Your task to perform on an android device: Open Chrome and go to the settings page Image 0: 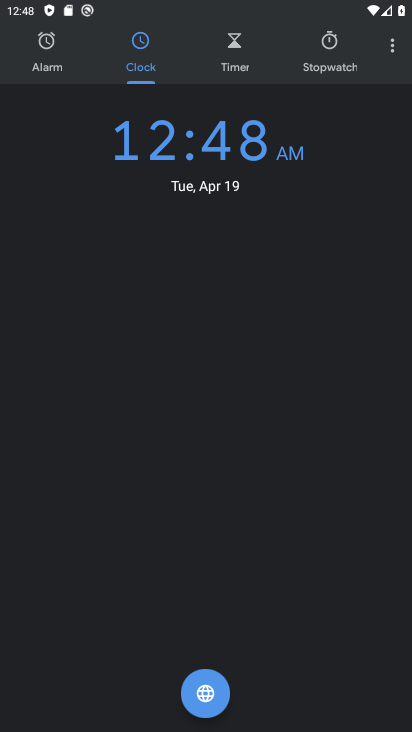
Step 0: press back button
Your task to perform on an android device: Open Chrome and go to the settings page Image 1: 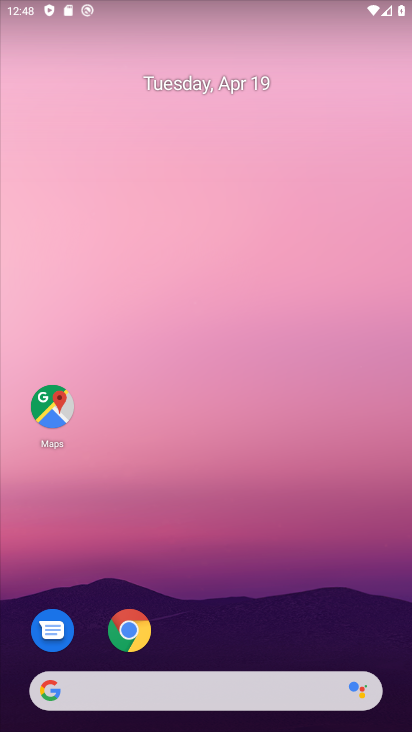
Step 1: click (142, 641)
Your task to perform on an android device: Open Chrome and go to the settings page Image 2: 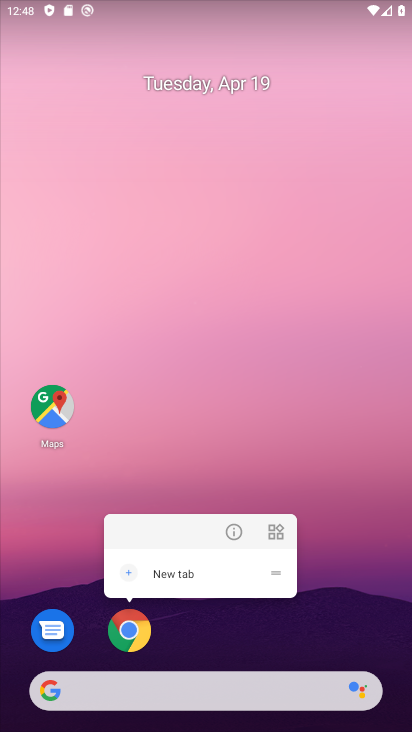
Step 2: click (134, 634)
Your task to perform on an android device: Open Chrome and go to the settings page Image 3: 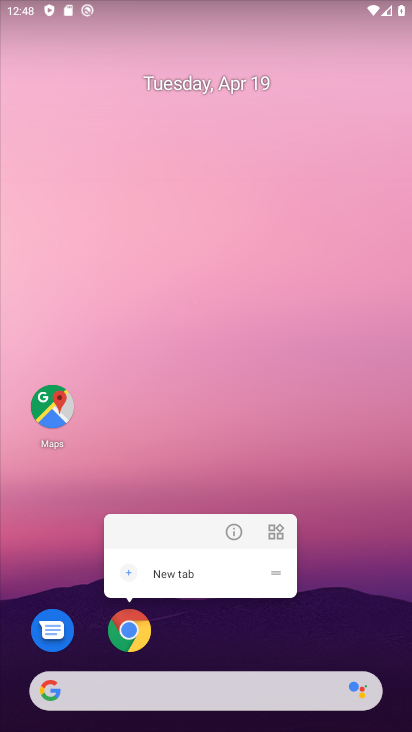
Step 3: click (123, 633)
Your task to perform on an android device: Open Chrome and go to the settings page Image 4: 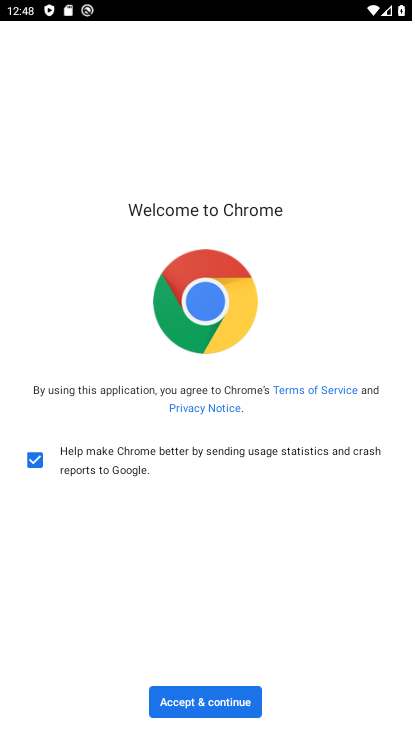
Step 4: click (209, 703)
Your task to perform on an android device: Open Chrome and go to the settings page Image 5: 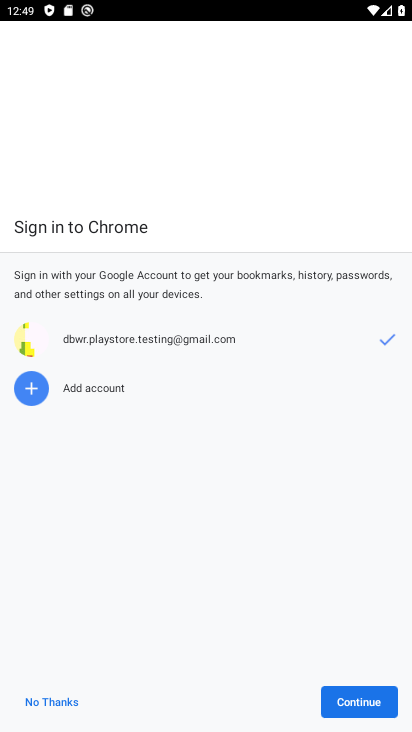
Step 5: click (359, 703)
Your task to perform on an android device: Open Chrome and go to the settings page Image 6: 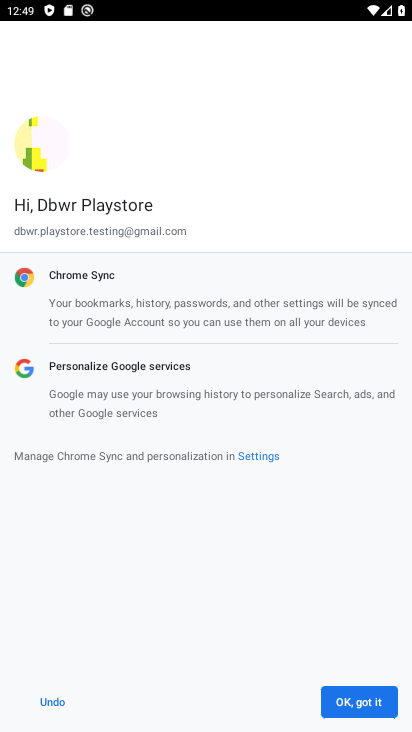
Step 6: click (361, 698)
Your task to perform on an android device: Open Chrome and go to the settings page Image 7: 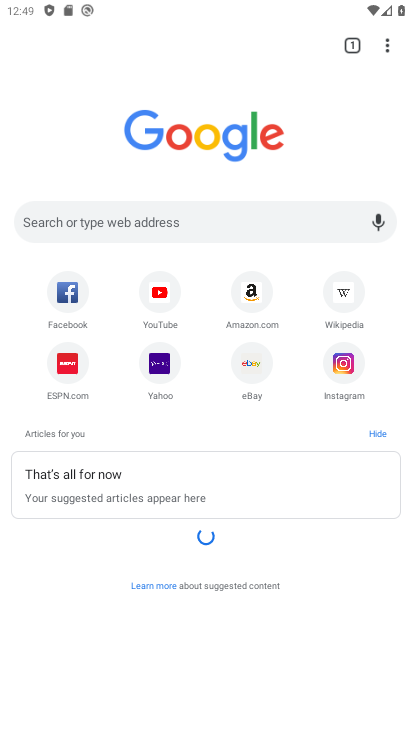
Step 7: click (386, 45)
Your task to perform on an android device: Open Chrome and go to the settings page Image 8: 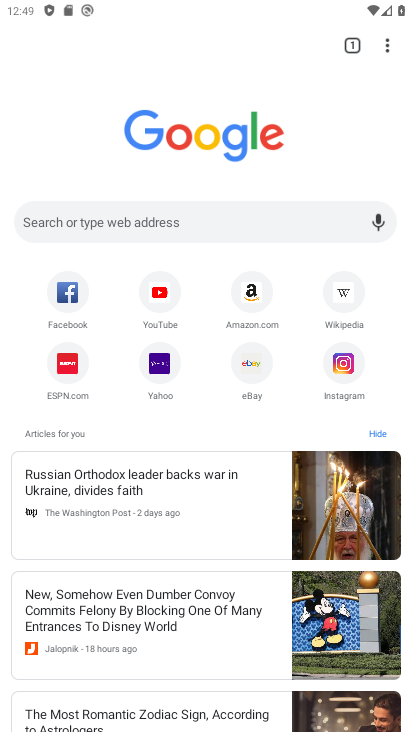
Step 8: click (390, 45)
Your task to perform on an android device: Open Chrome and go to the settings page Image 9: 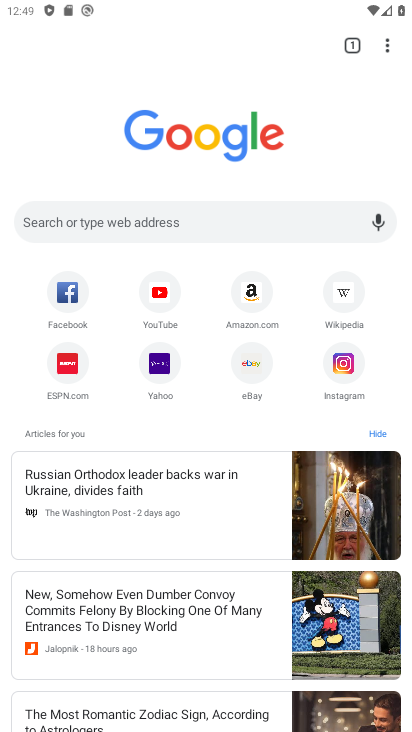
Step 9: task complete